Your task to perform on an android device: Open eBay Image 0: 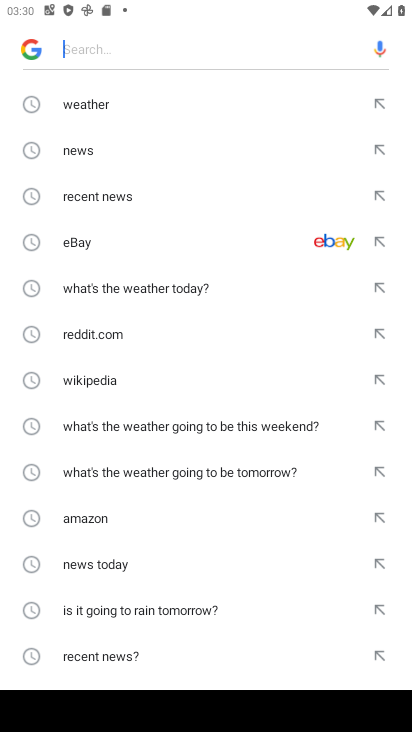
Step 0: press home button
Your task to perform on an android device: Open eBay Image 1: 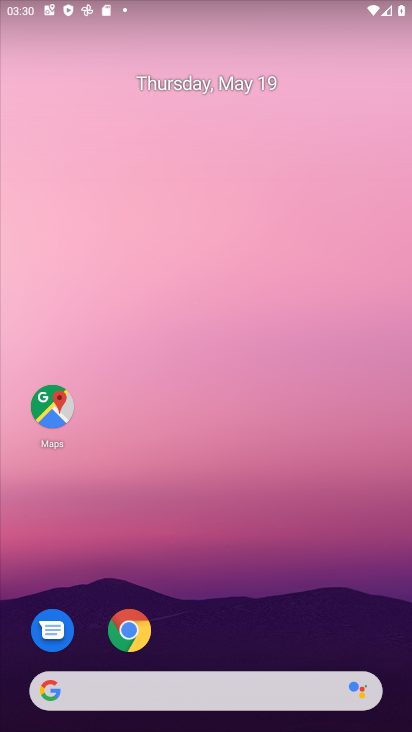
Step 1: click (128, 627)
Your task to perform on an android device: Open eBay Image 2: 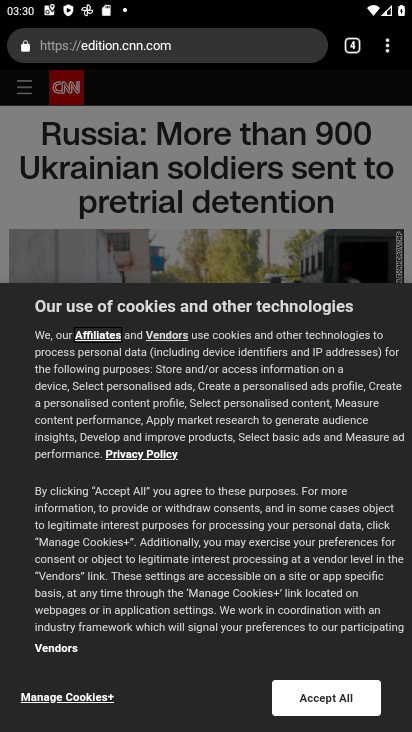
Step 2: click (202, 38)
Your task to perform on an android device: Open eBay Image 3: 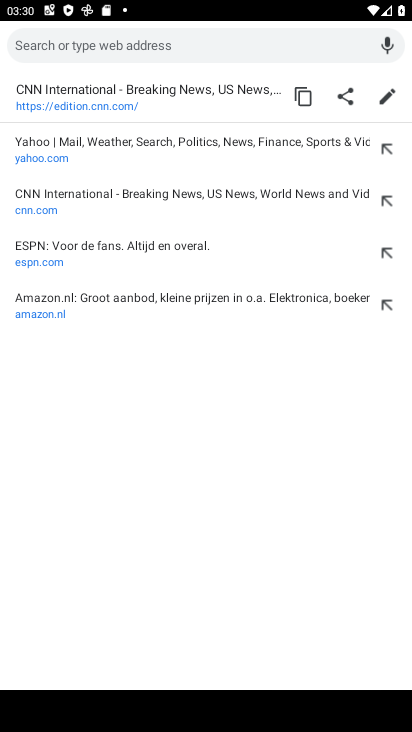
Step 3: type "ebay"
Your task to perform on an android device: Open eBay Image 4: 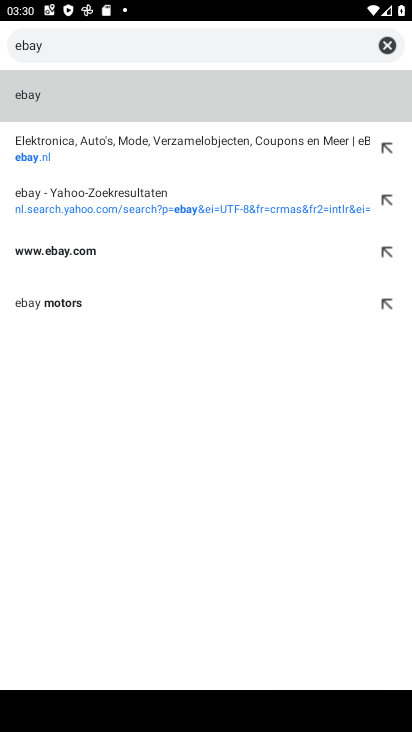
Step 4: click (23, 150)
Your task to perform on an android device: Open eBay Image 5: 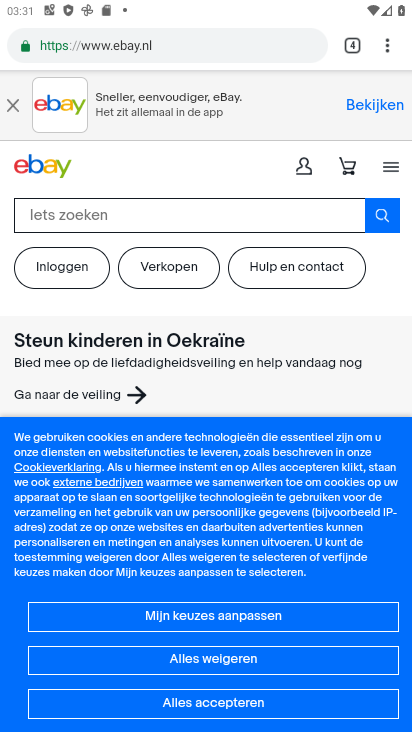
Step 5: task complete